Your task to perform on an android device: set the timer Image 0: 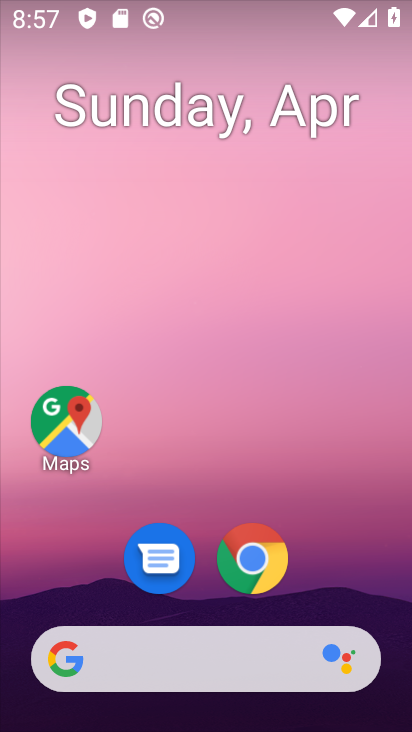
Step 0: drag from (339, 533) to (345, 58)
Your task to perform on an android device: set the timer Image 1: 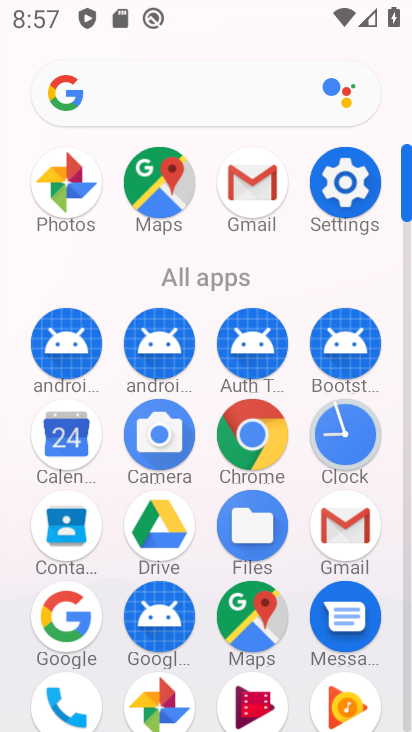
Step 1: click (343, 435)
Your task to perform on an android device: set the timer Image 2: 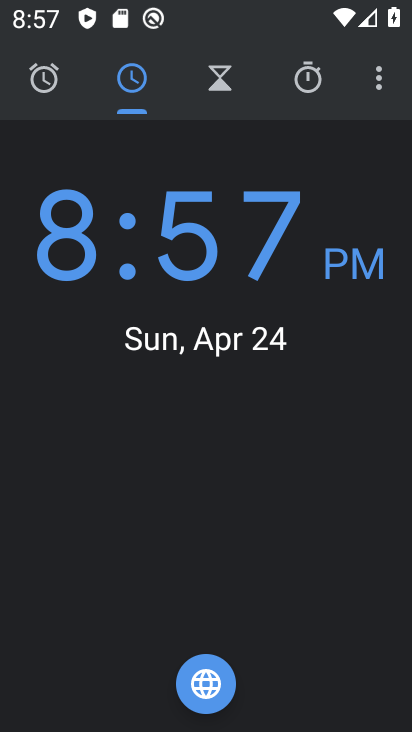
Step 2: click (219, 73)
Your task to perform on an android device: set the timer Image 3: 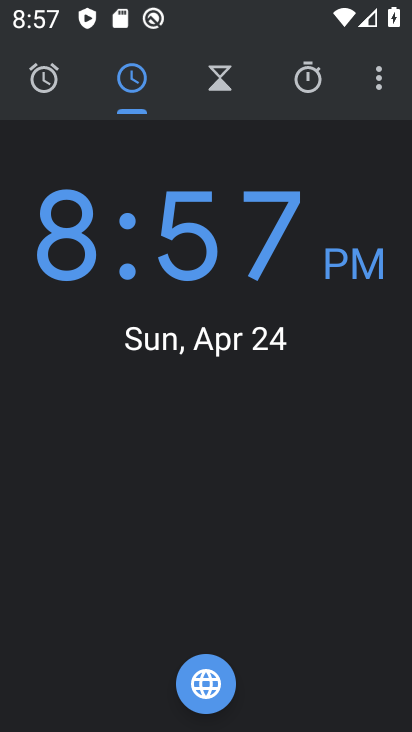
Step 3: click (230, 72)
Your task to perform on an android device: set the timer Image 4: 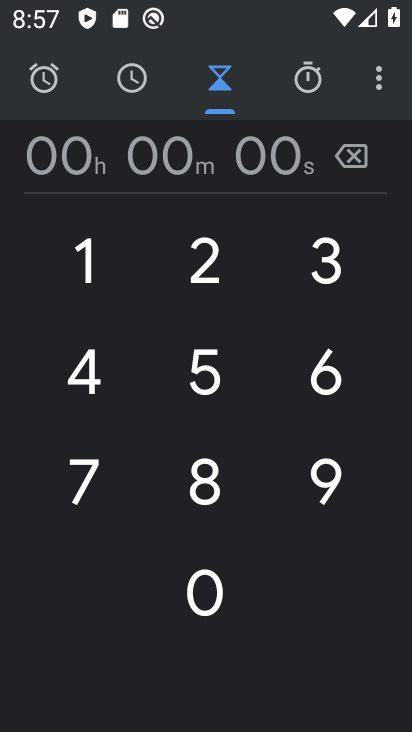
Step 4: click (201, 374)
Your task to perform on an android device: set the timer Image 5: 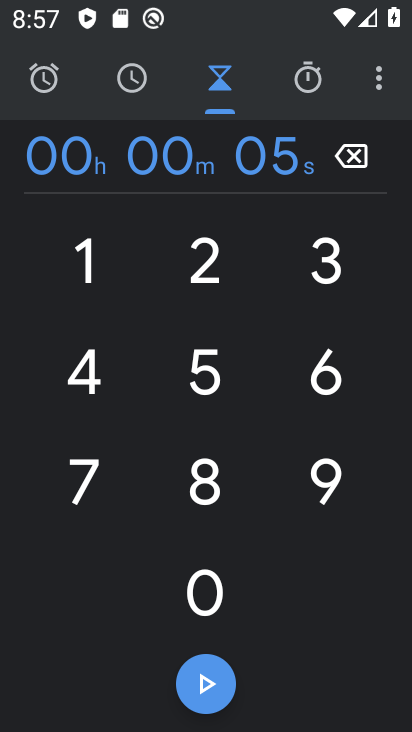
Step 5: click (200, 681)
Your task to perform on an android device: set the timer Image 6: 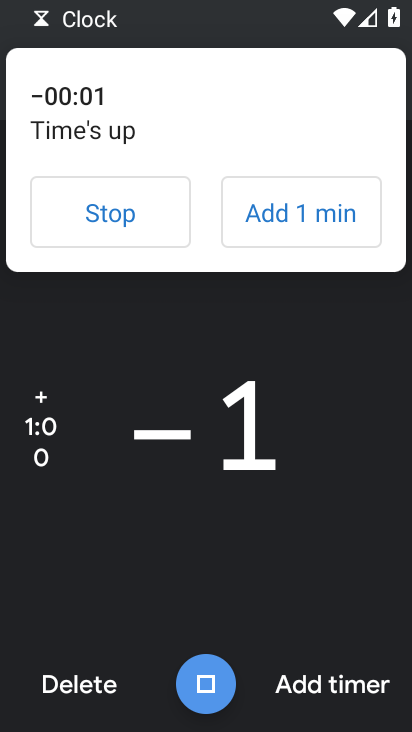
Step 6: task complete